Your task to perform on an android device: Open Reddit.com Image 0: 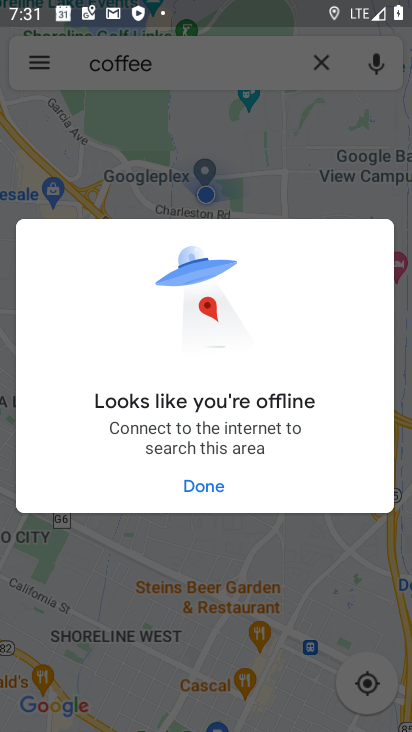
Step 0: press home button
Your task to perform on an android device: Open Reddit.com Image 1: 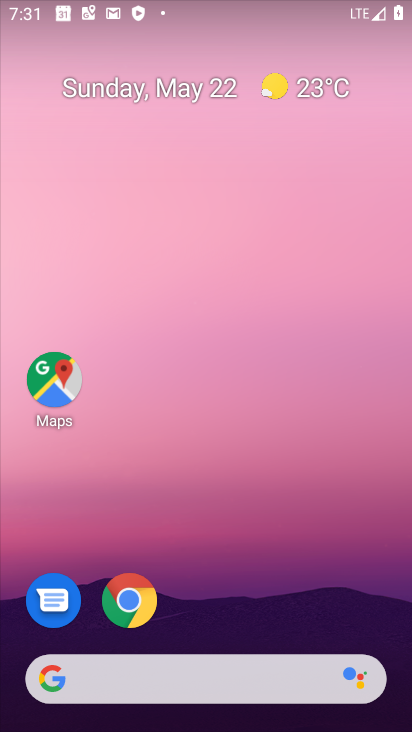
Step 1: drag from (342, 598) to (263, 41)
Your task to perform on an android device: Open Reddit.com Image 2: 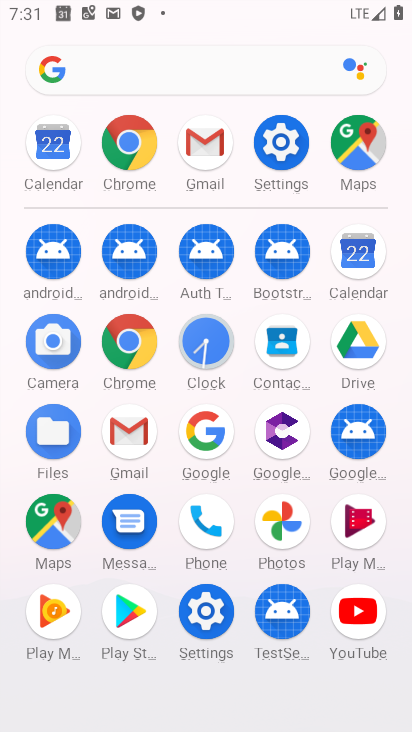
Step 2: click (193, 433)
Your task to perform on an android device: Open Reddit.com Image 3: 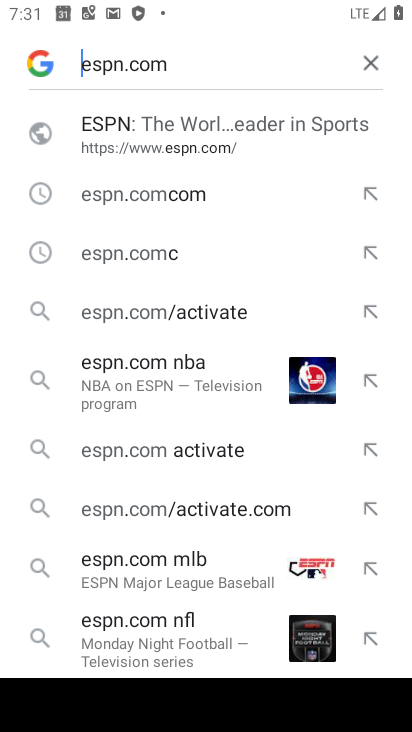
Step 3: click (366, 59)
Your task to perform on an android device: Open Reddit.com Image 4: 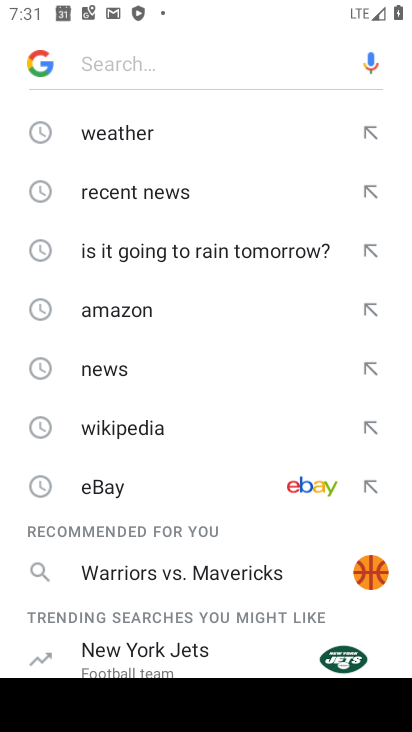
Step 4: type "reddit.com"
Your task to perform on an android device: Open Reddit.com Image 5: 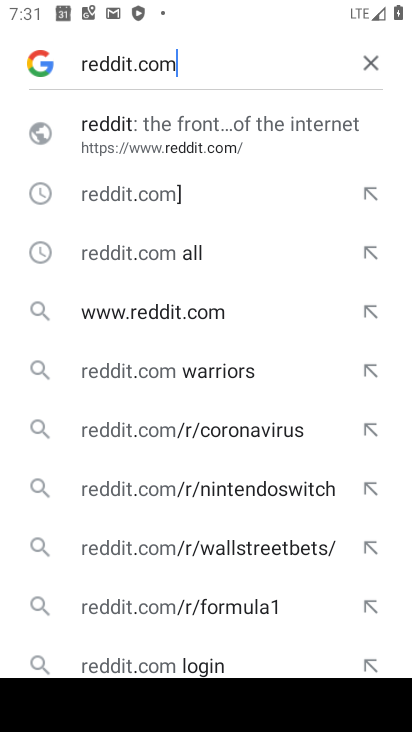
Step 5: click (233, 154)
Your task to perform on an android device: Open Reddit.com Image 6: 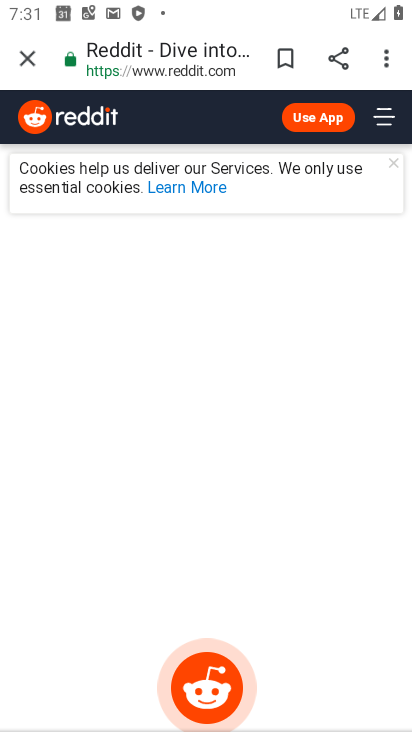
Step 6: task complete